Your task to perform on an android device: Open Wikipedia Image 0: 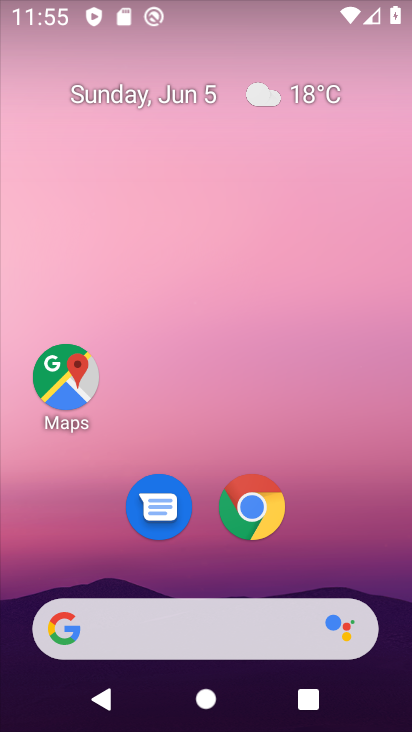
Step 0: click (267, 520)
Your task to perform on an android device: Open Wikipedia Image 1: 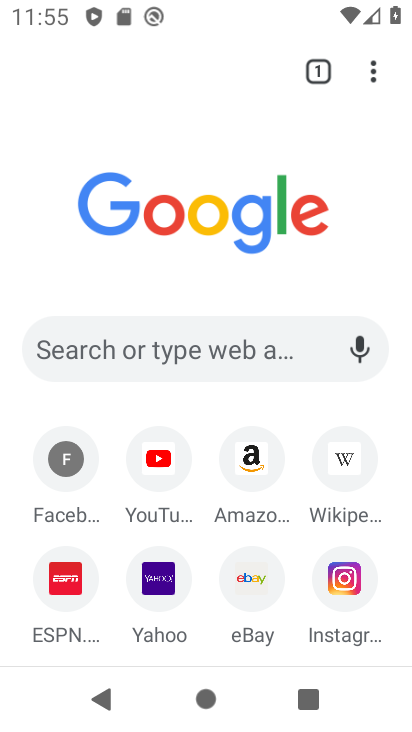
Step 1: click (359, 485)
Your task to perform on an android device: Open Wikipedia Image 2: 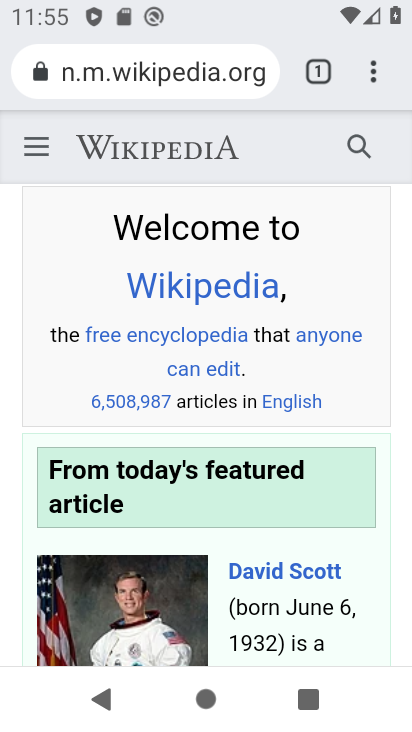
Step 2: task complete